Your task to perform on an android device: Go to display settings Image 0: 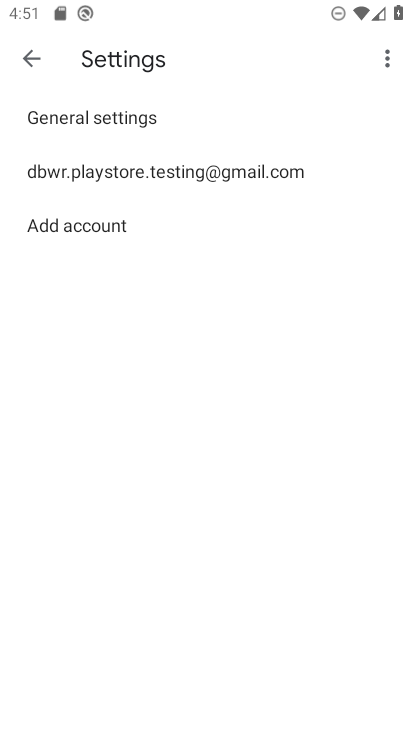
Step 0: press home button
Your task to perform on an android device: Go to display settings Image 1: 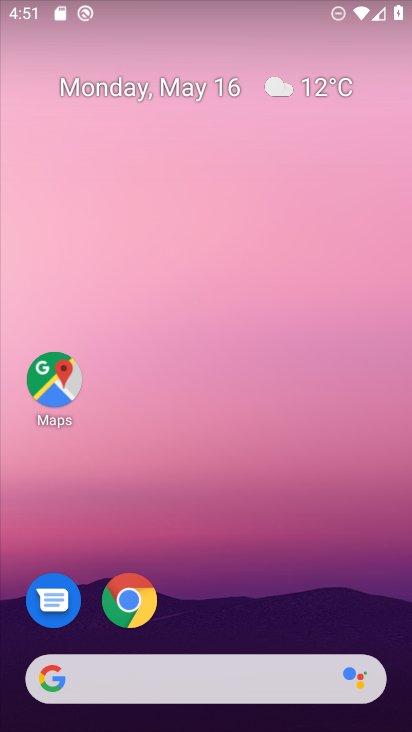
Step 1: drag from (345, 573) to (232, 75)
Your task to perform on an android device: Go to display settings Image 2: 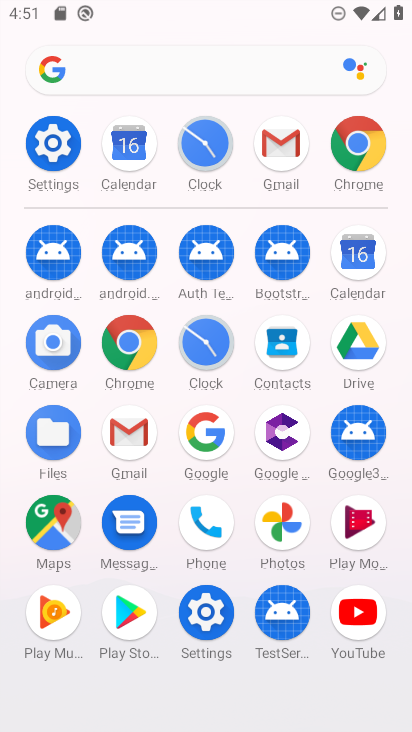
Step 2: click (59, 138)
Your task to perform on an android device: Go to display settings Image 3: 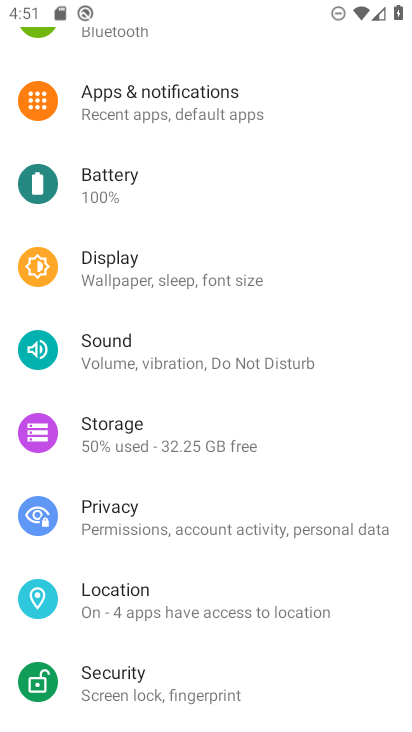
Step 3: click (138, 280)
Your task to perform on an android device: Go to display settings Image 4: 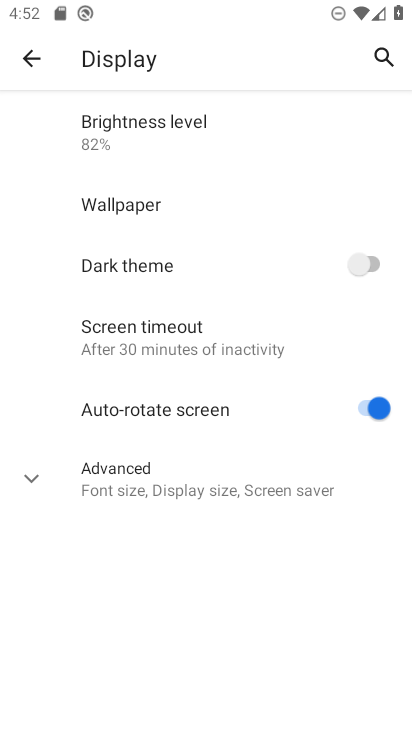
Step 4: press home button
Your task to perform on an android device: Go to display settings Image 5: 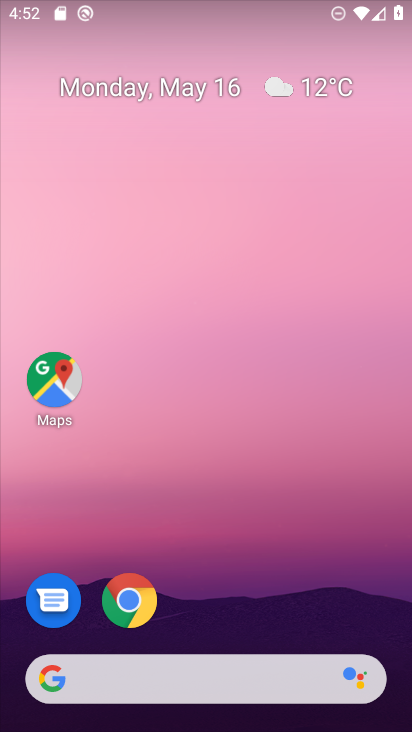
Step 5: drag from (299, 546) to (230, 55)
Your task to perform on an android device: Go to display settings Image 6: 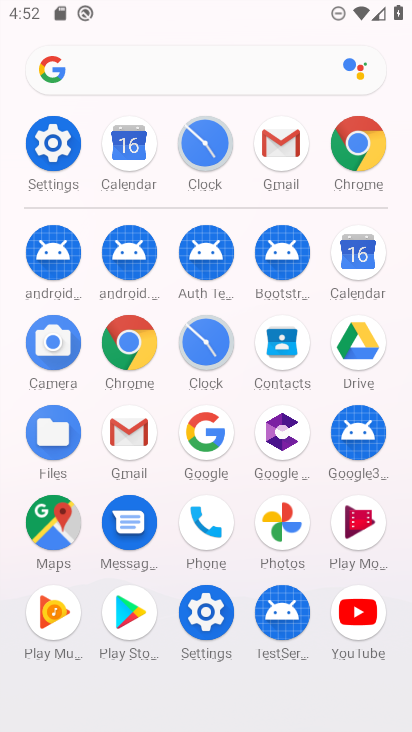
Step 6: click (71, 148)
Your task to perform on an android device: Go to display settings Image 7: 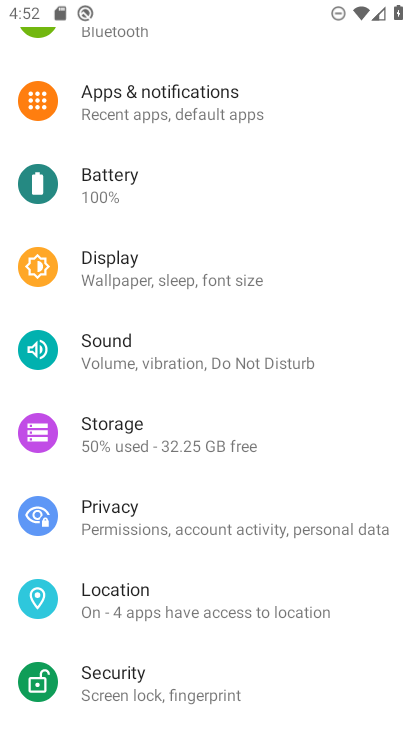
Step 7: click (149, 271)
Your task to perform on an android device: Go to display settings Image 8: 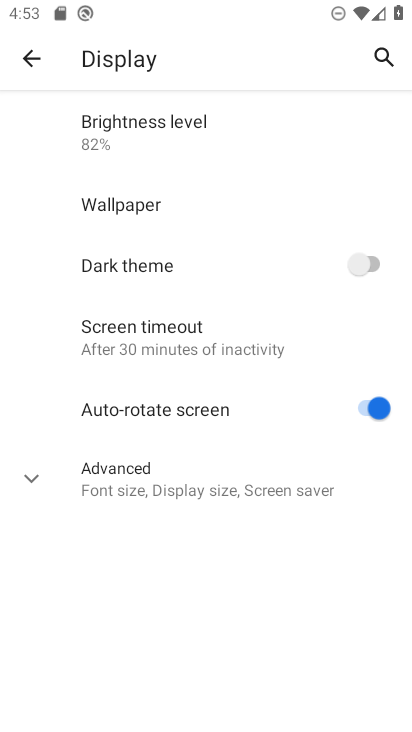
Step 8: task complete